Your task to perform on an android device: Go to Reddit.com Image 0: 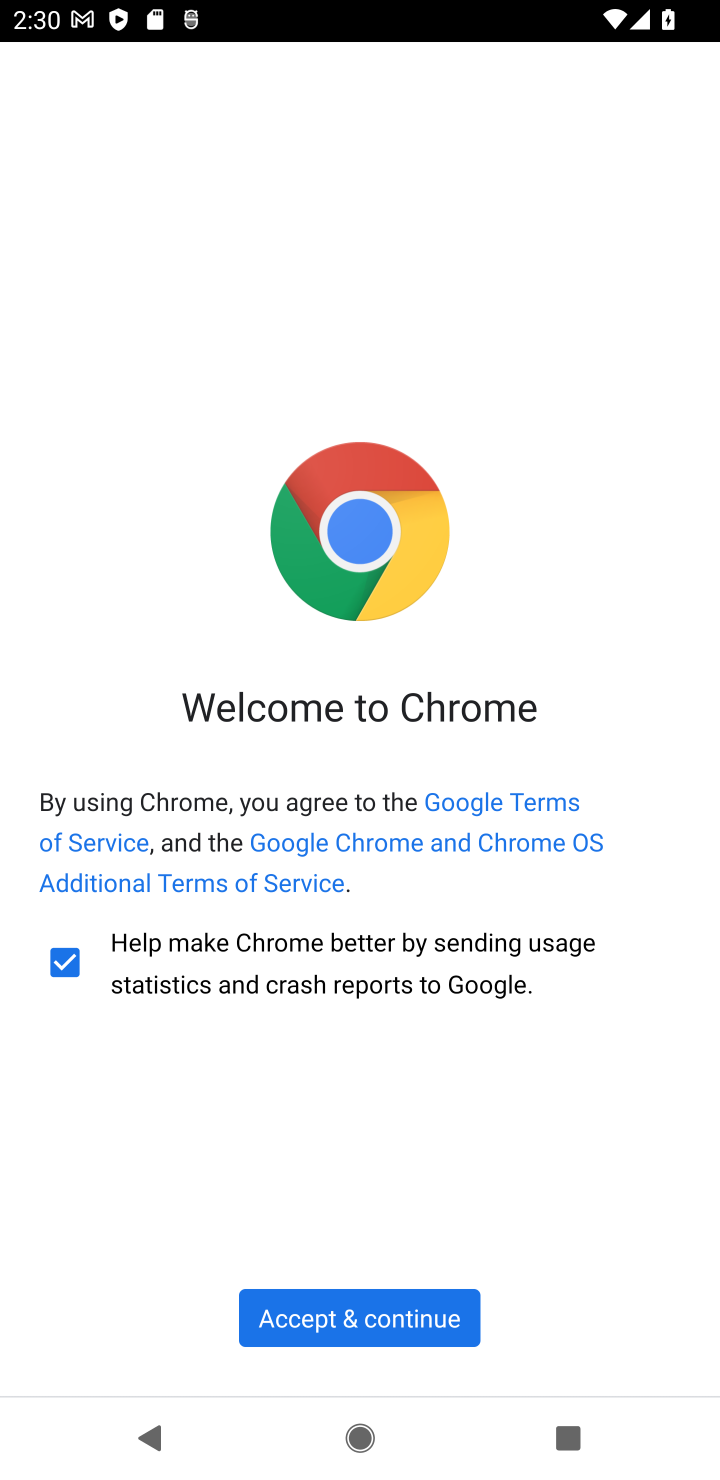
Step 0: press home button
Your task to perform on an android device: Go to Reddit.com Image 1: 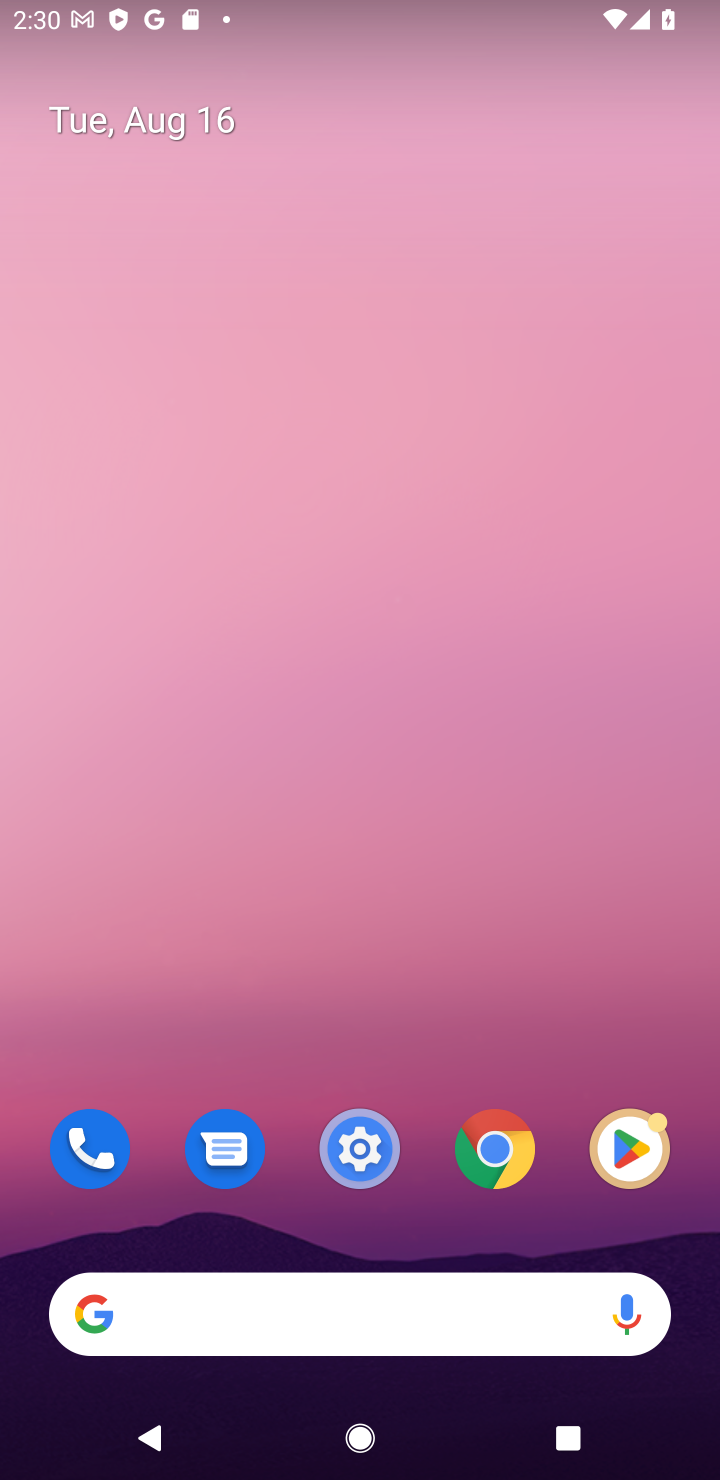
Step 1: click (355, 1312)
Your task to perform on an android device: Go to Reddit.com Image 2: 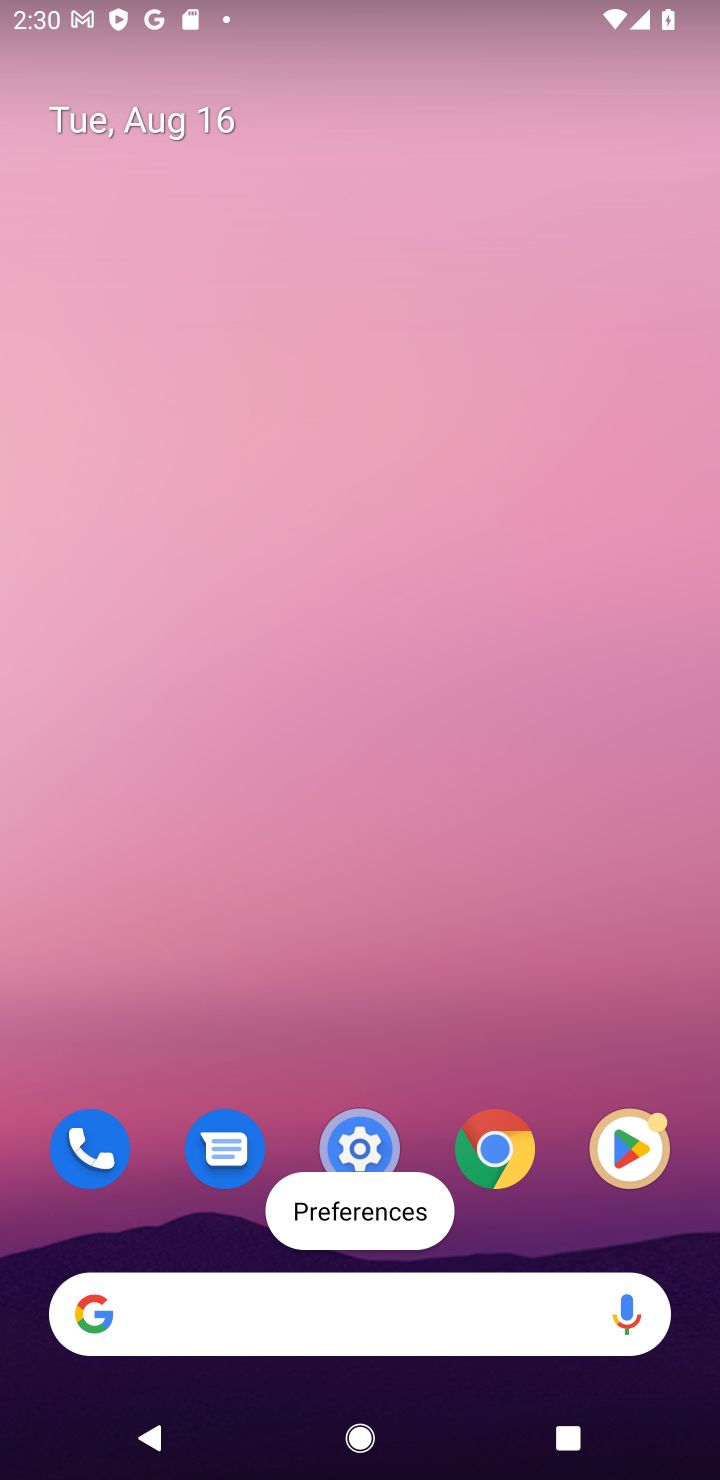
Step 2: click (355, 1312)
Your task to perform on an android device: Go to Reddit.com Image 3: 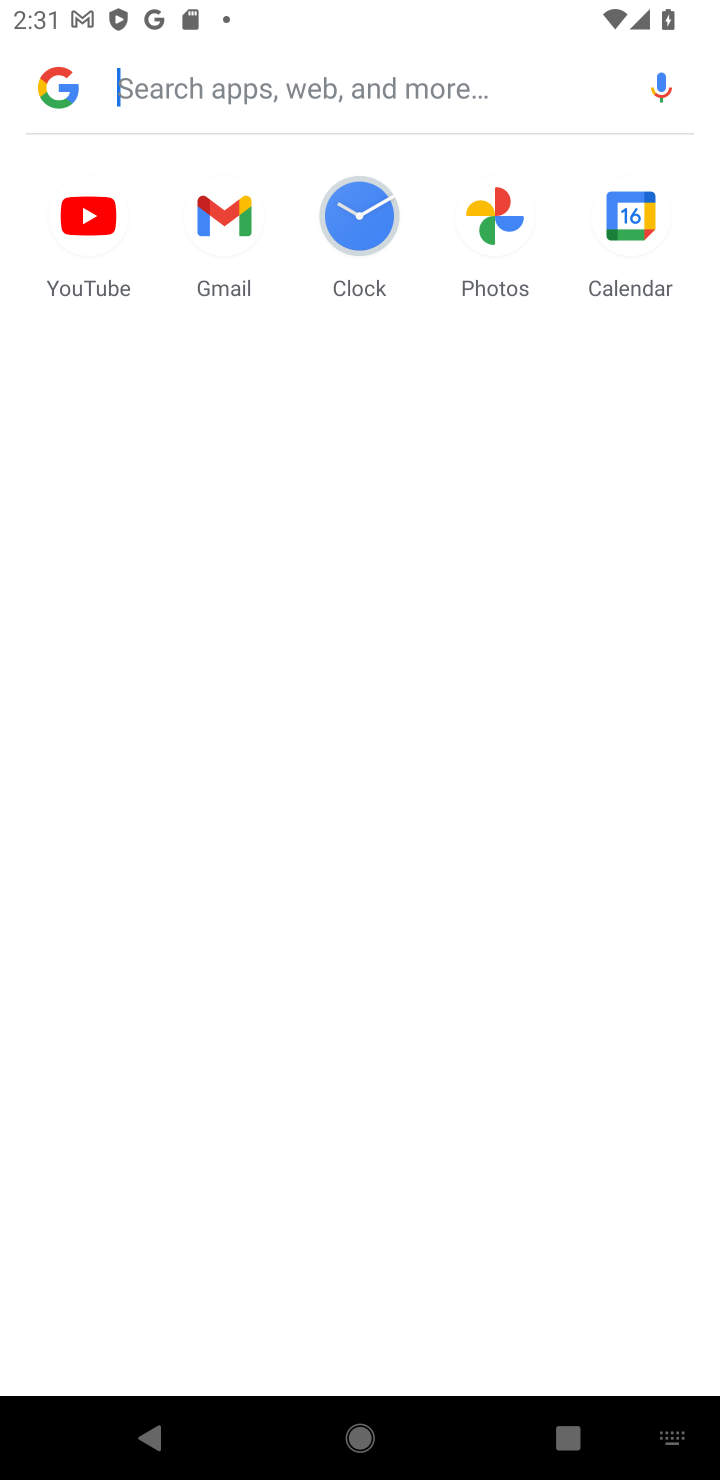
Step 3: click (41, 88)
Your task to perform on an android device: Go to Reddit.com Image 4: 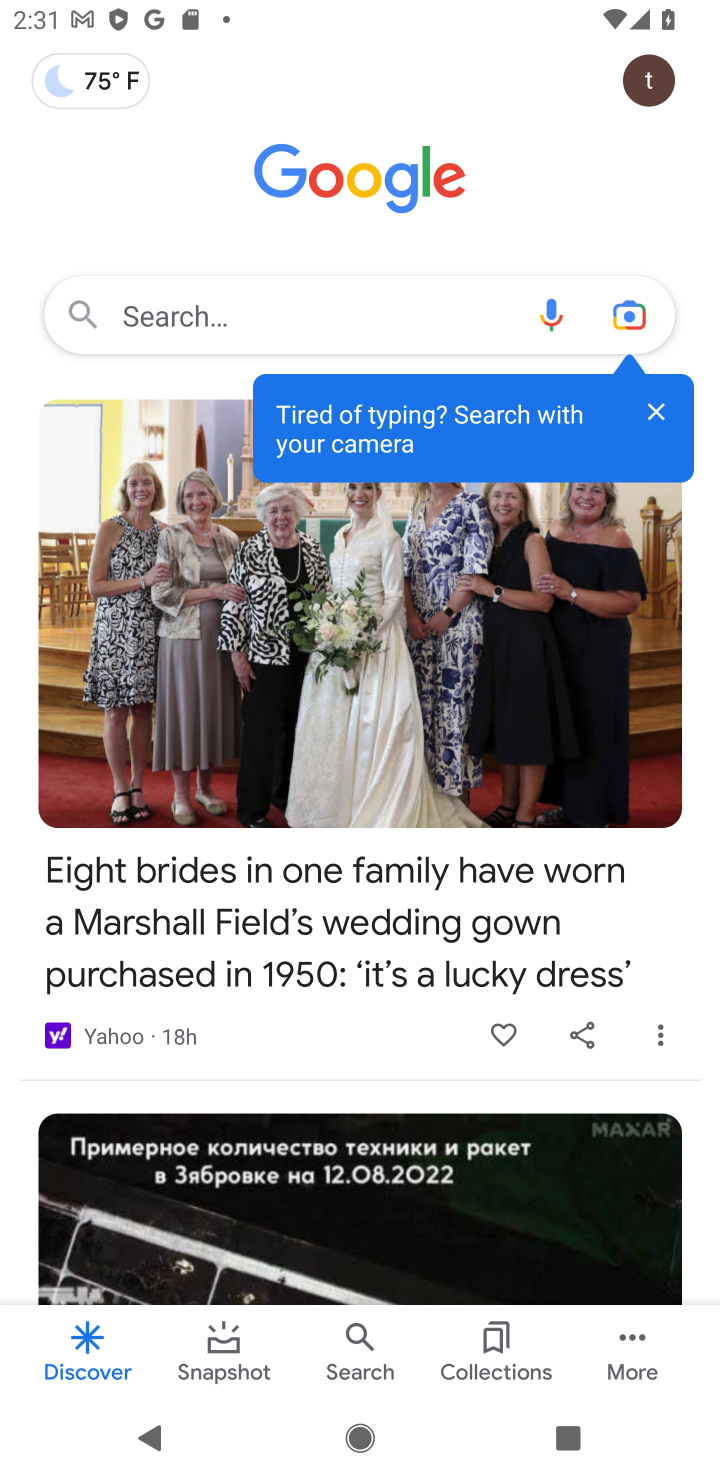
Step 4: click (247, 311)
Your task to perform on an android device: Go to Reddit.com Image 5: 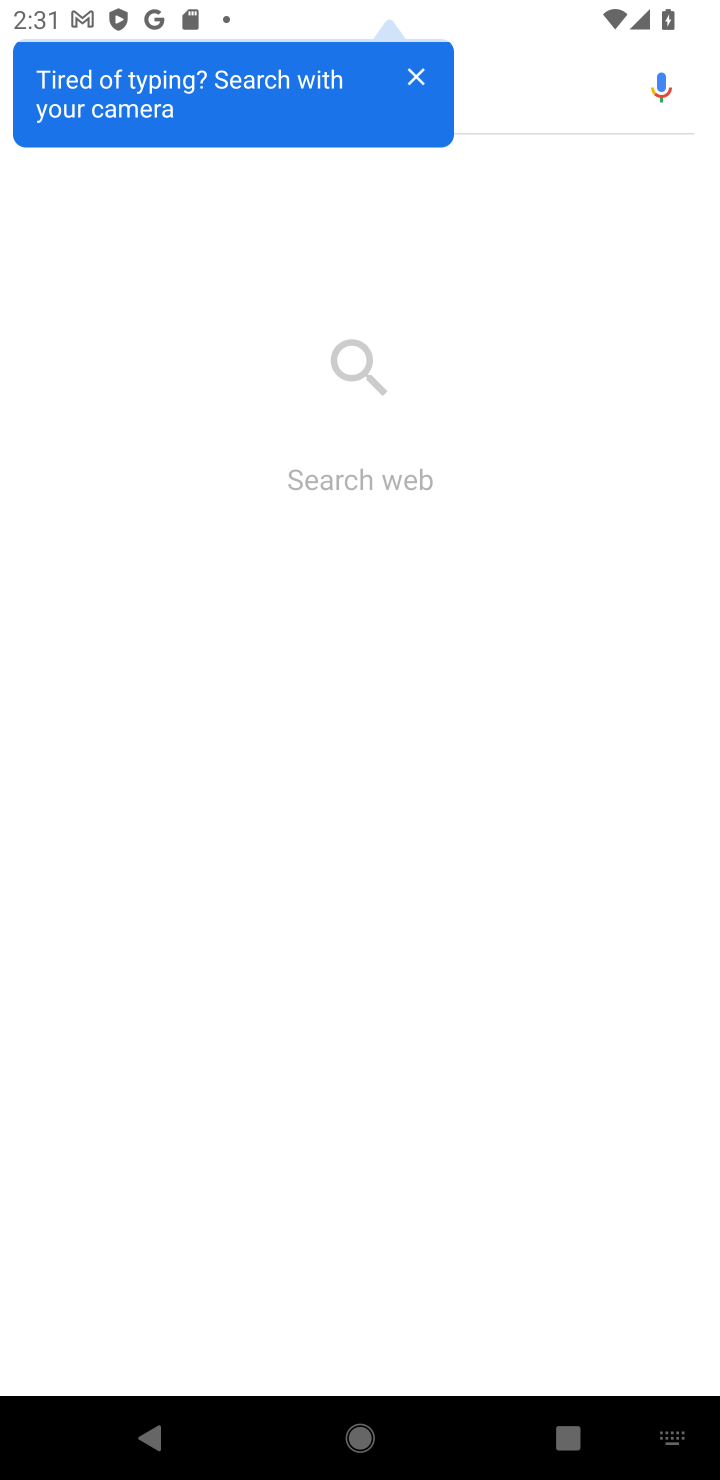
Step 5: click (353, 354)
Your task to perform on an android device: Go to Reddit.com Image 6: 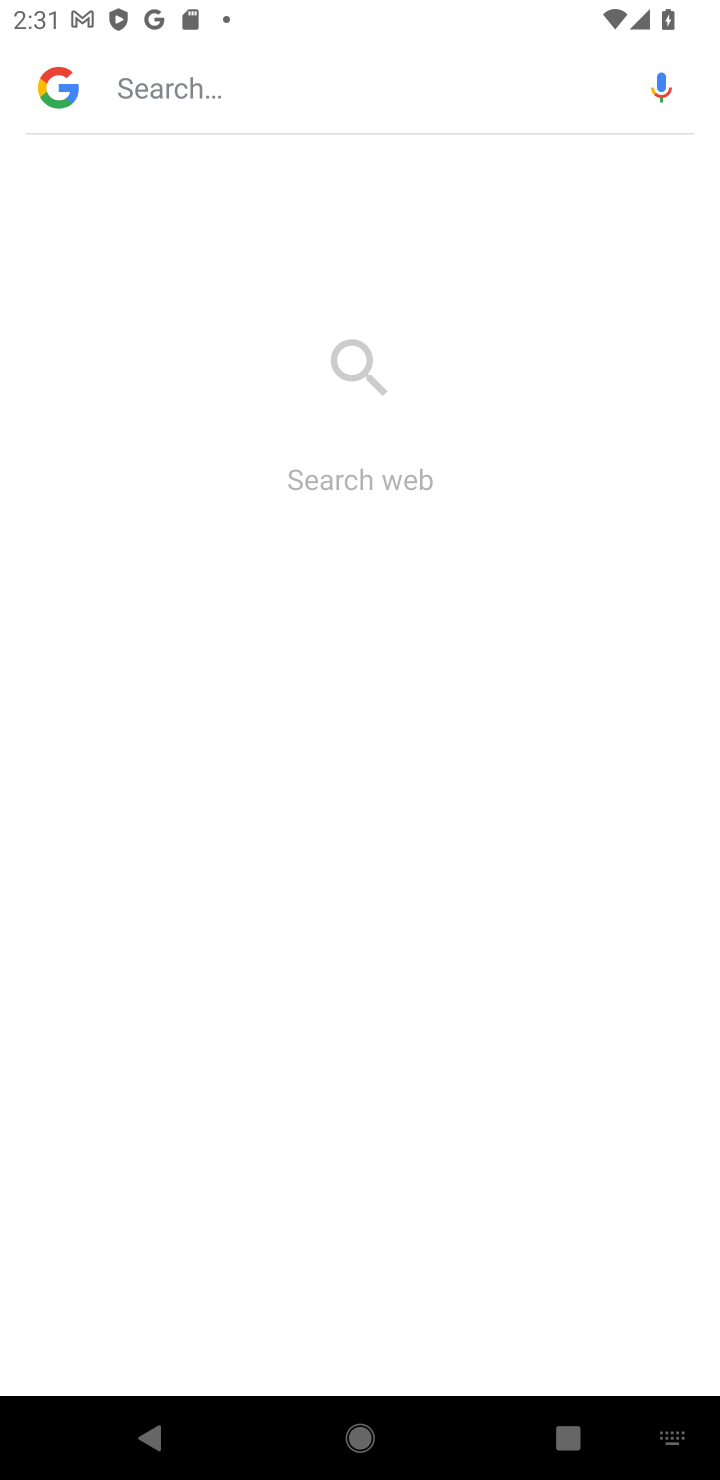
Step 6: type "Reddit.com"
Your task to perform on an android device: Go to Reddit.com Image 7: 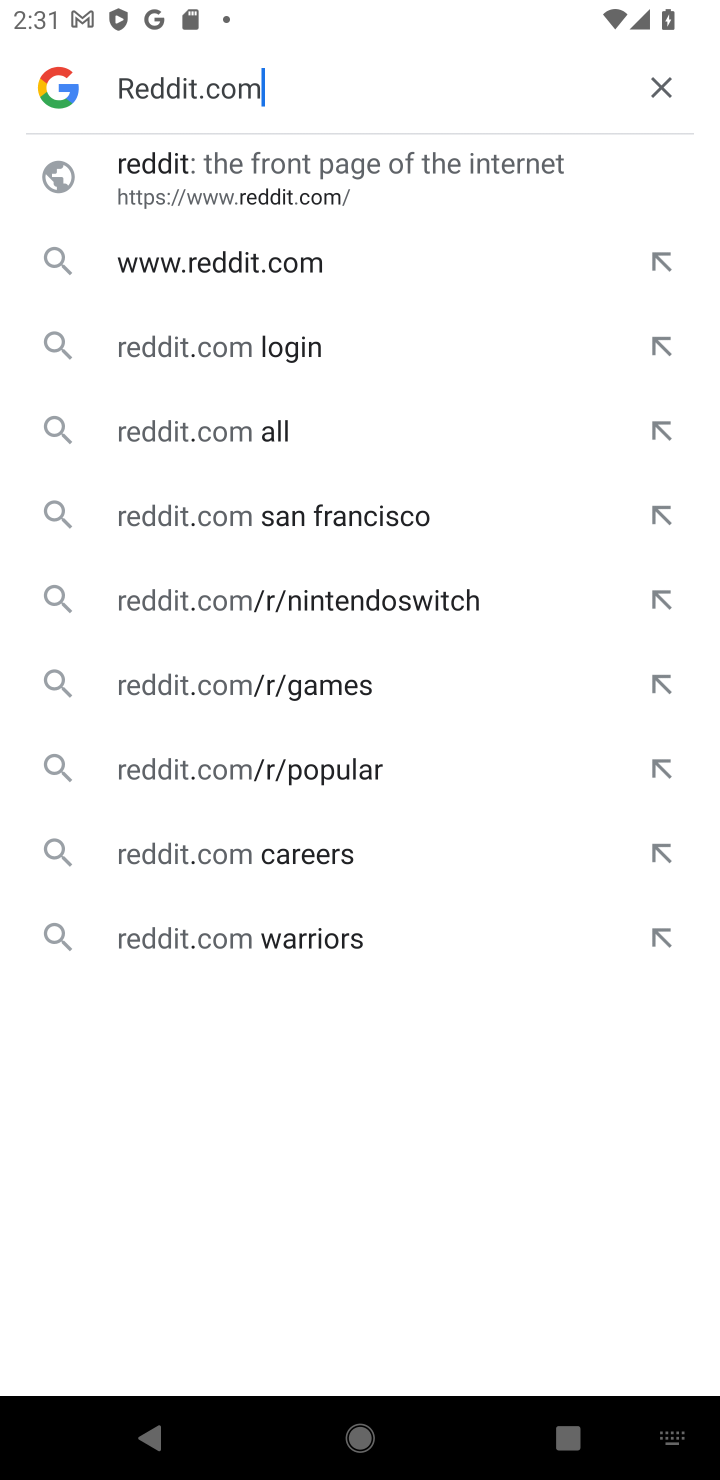
Step 7: click (284, 176)
Your task to perform on an android device: Go to Reddit.com Image 8: 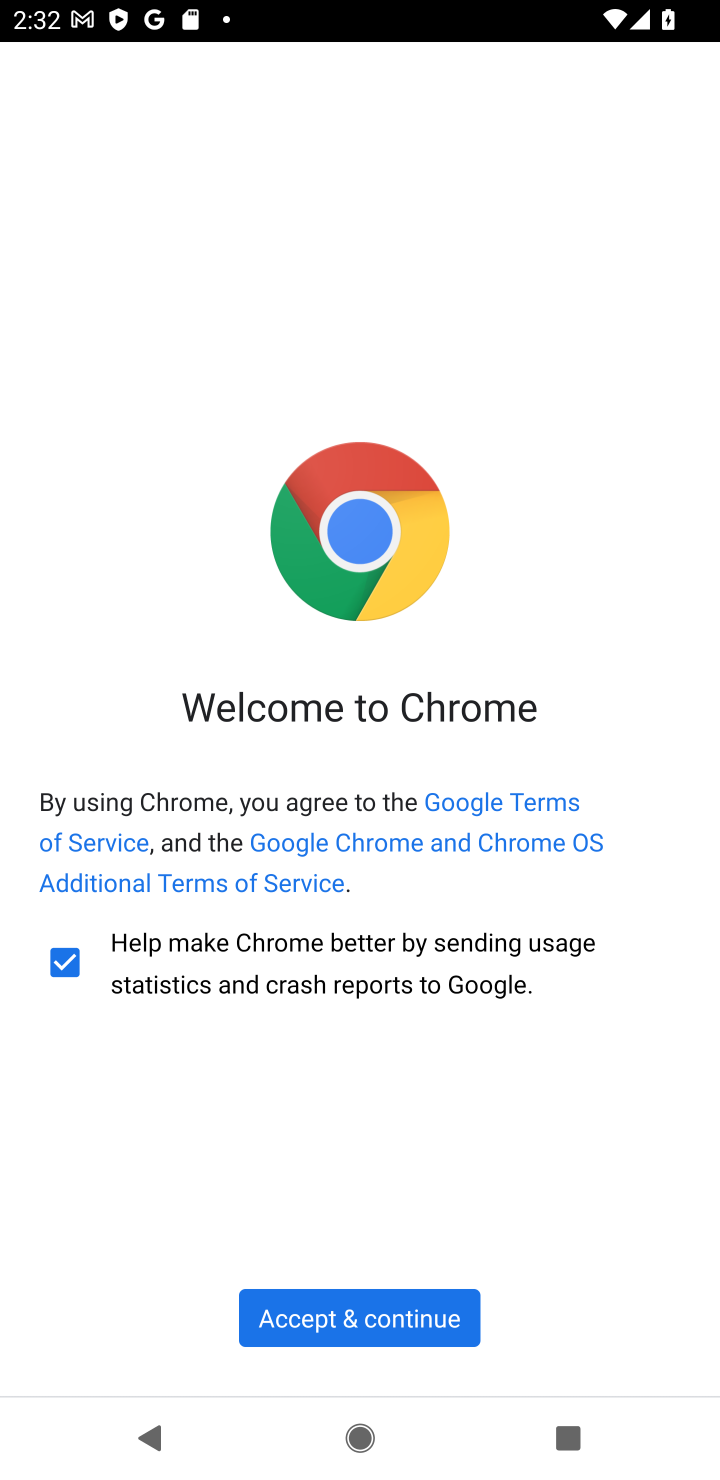
Step 8: click (423, 1310)
Your task to perform on an android device: Go to Reddit.com Image 9: 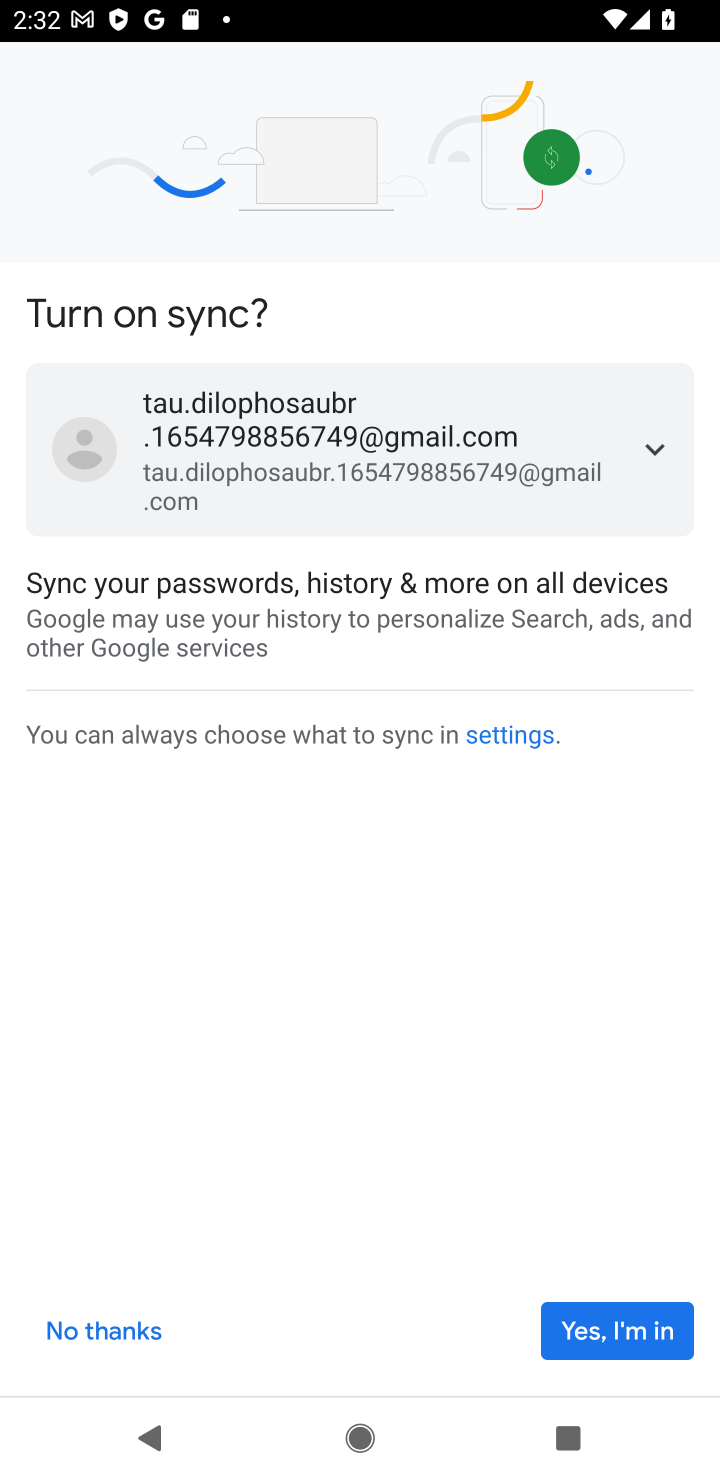
Step 9: click (570, 1328)
Your task to perform on an android device: Go to Reddit.com Image 10: 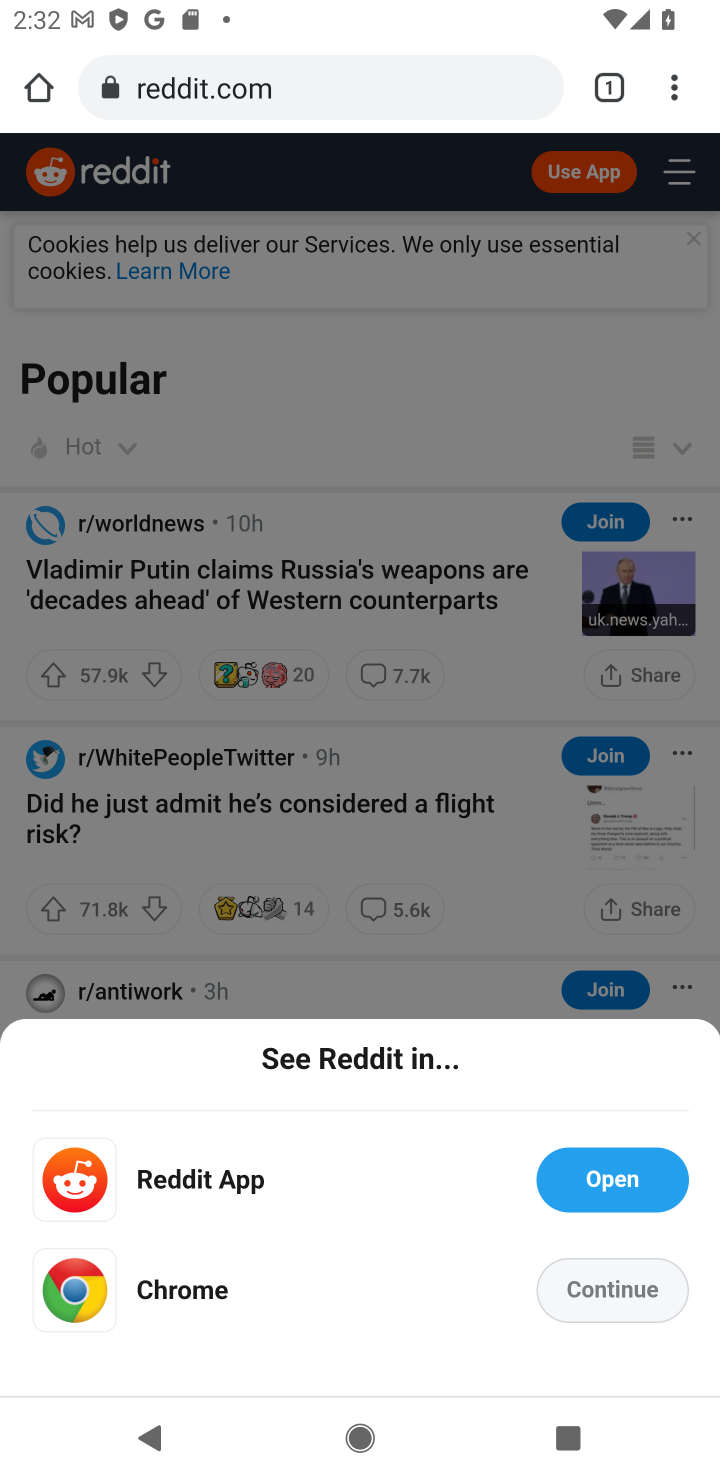
Step 10: click (620, 1291)
Your task to perform on an android device: Go to Reddit.com Image 11: 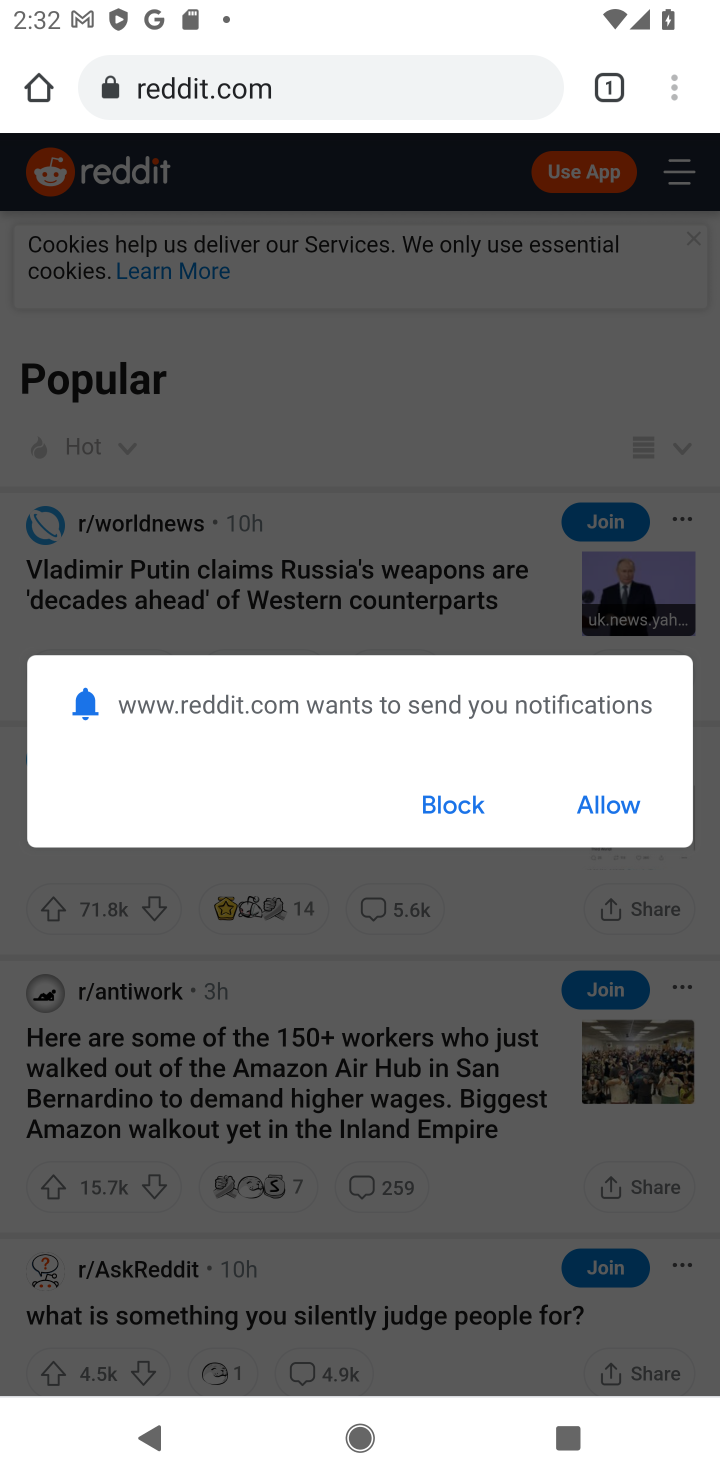
Step 11: click (633, 807)
Your task to perform on an android device: Go to Reddit.com Image 12: 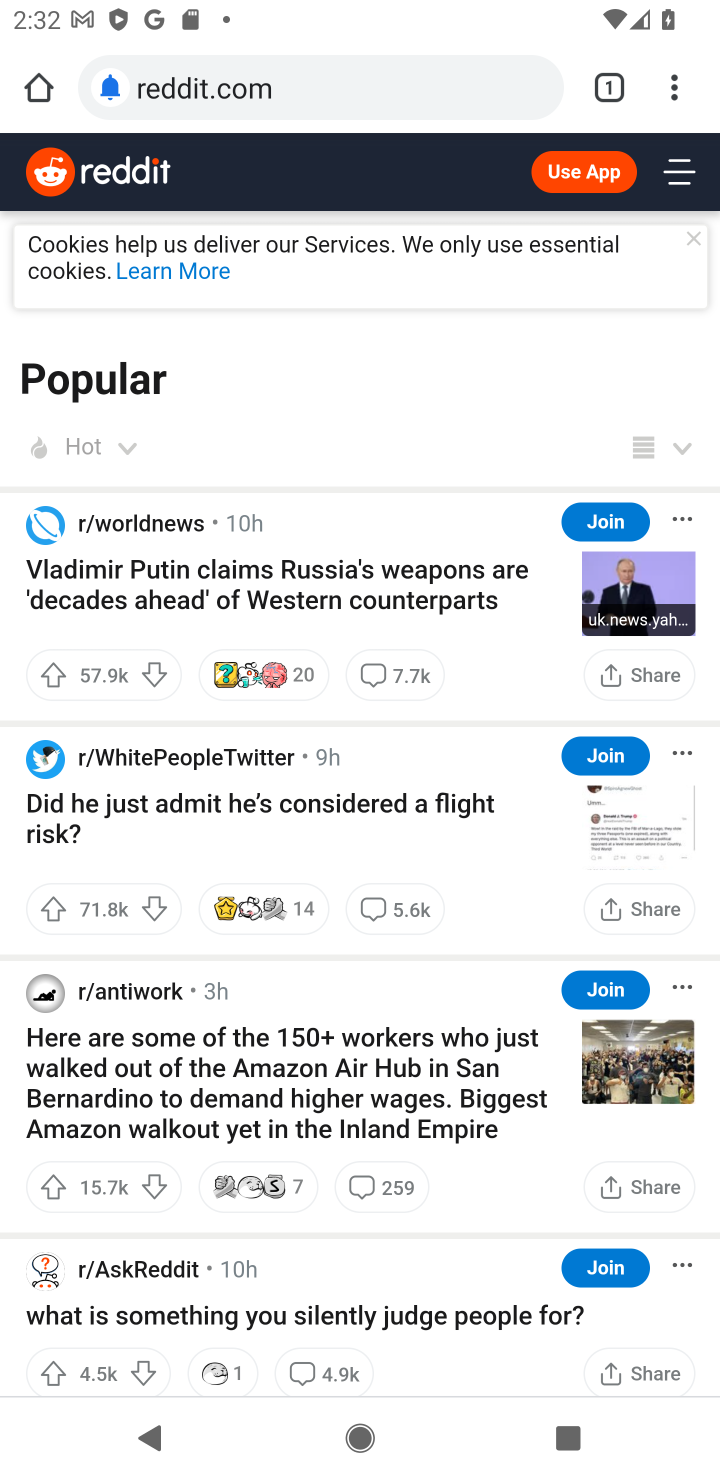
Step 12: task complete